Your task to perform on an android device: snooze an email in the gmail app Image 0: 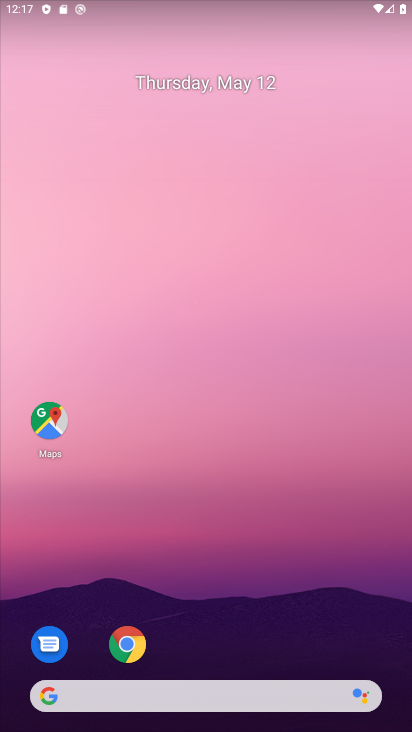
Step 0: drag from (256, 605) to (249, 82)
Your task to perform on an android device: snooze an email in the gmail app Image 1: 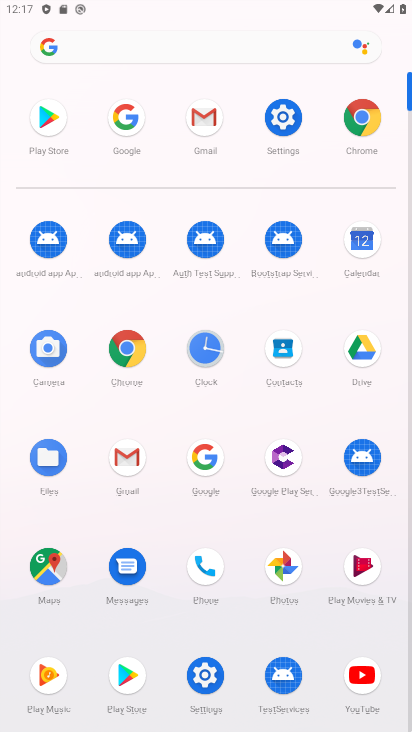
Step 1: click (131, 459)
Your task to perform on an android device: snooze an email in the gmail app Image 2: 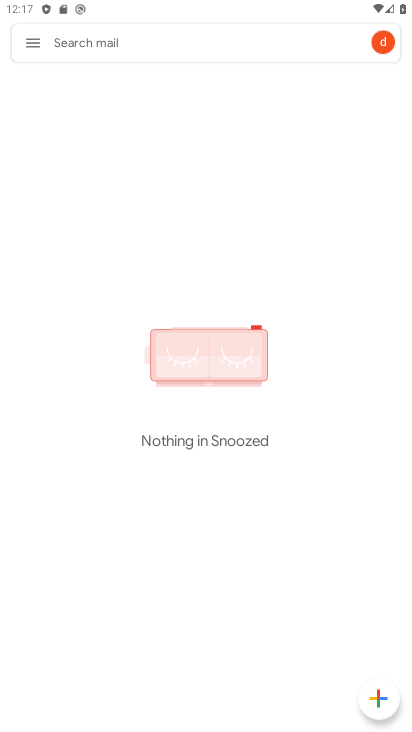
Step 2: click (35, 41)
Your task to perform on an android device: snooze an email in the gmail app Image 3: 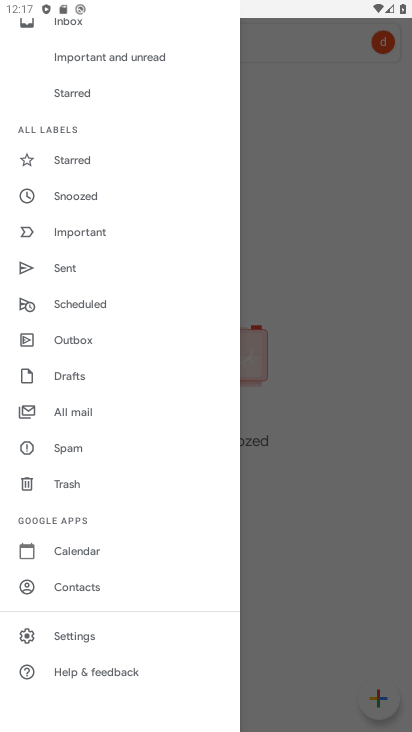
Step 3: click (112, 405)
Your task to perform on an android device: snooze an email in the gmail app Image 4: 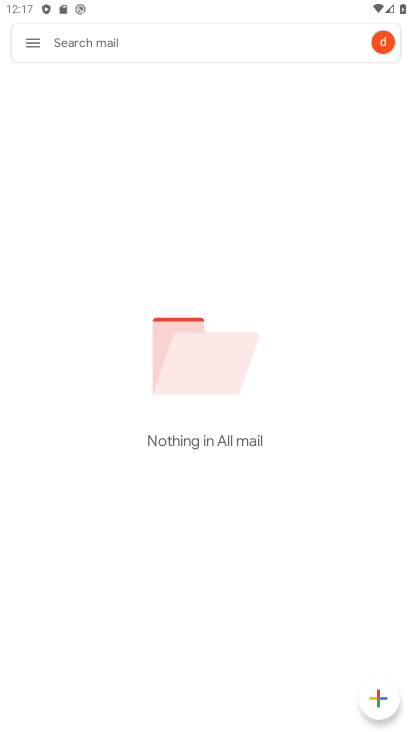
Step 4: task complete